Your task to perform on an android device: Open Google Chrome and click the shortcut for Amazon.com Image 0: 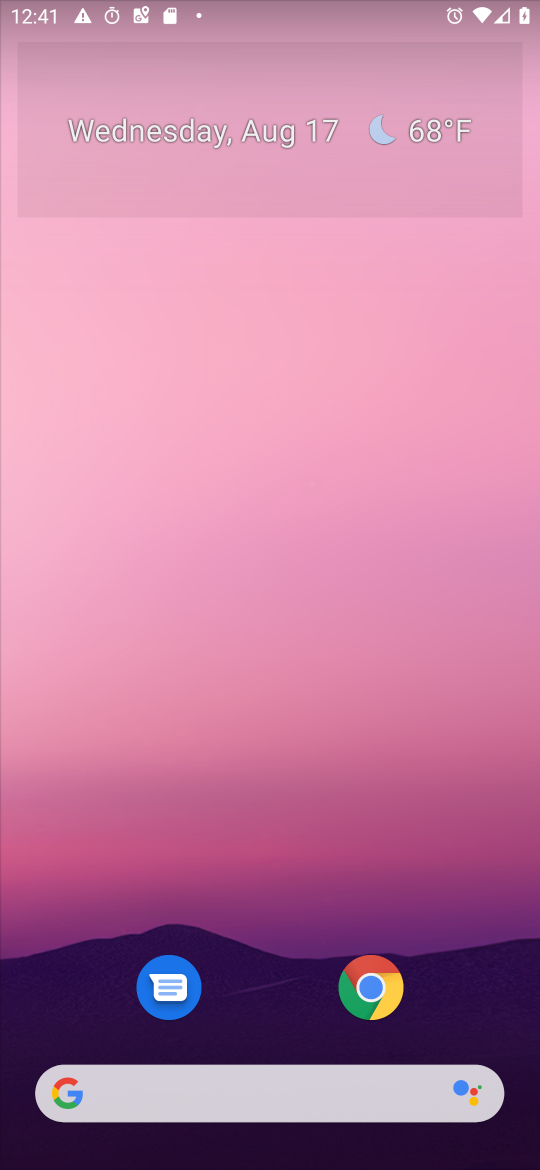
Step 0: click (381, 971)
Your task to perform on an android device: Open Google Chrome and click the shortcut for Amazon.com Image 1: 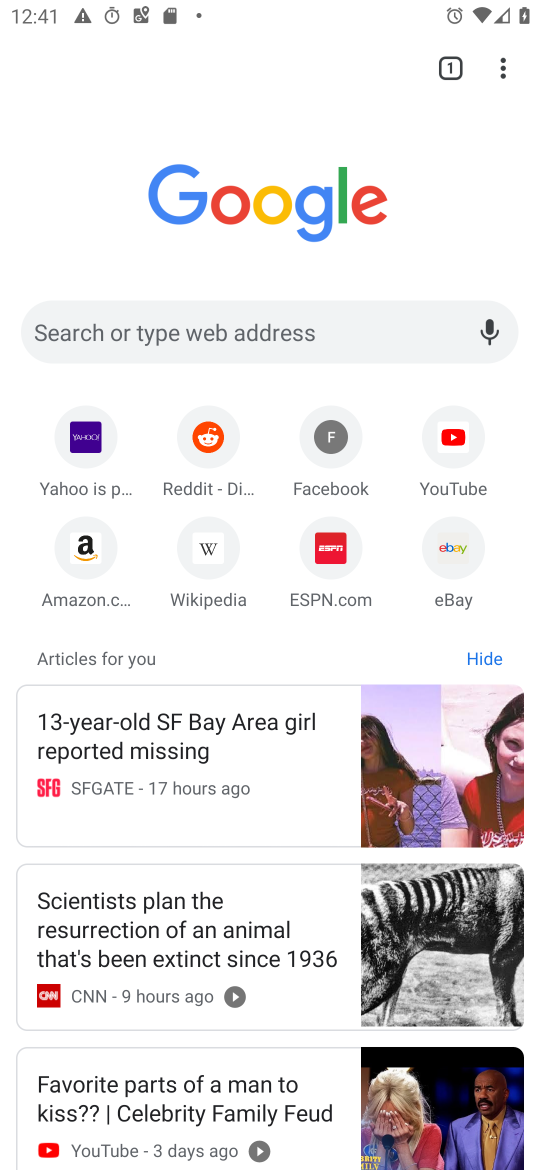
Step 1: click (64, 558)
Your task to perform on an android device: Open Google Chrome and click the shortcut for Amazon.com Image 2: 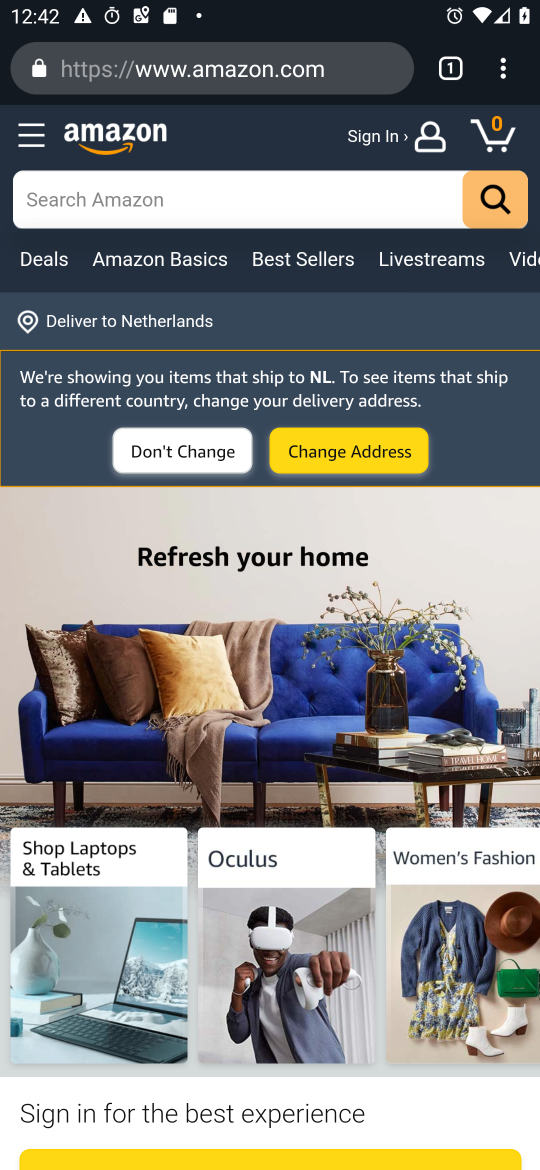
Step 2: task complete